Your task to perform on an android device: delete location history Image 0: 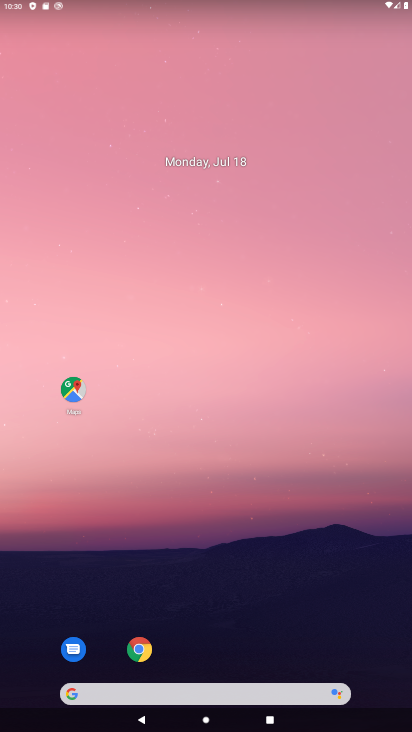
Step 0: click (69, 388)
Your task to perform on an android device: delete location history Image 1: 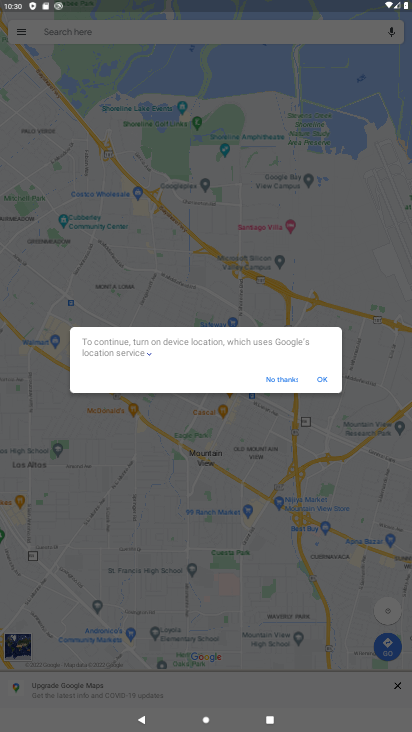
Step 1: click (18, 28)
Your task to perform on an android device: delete location history Image 2: 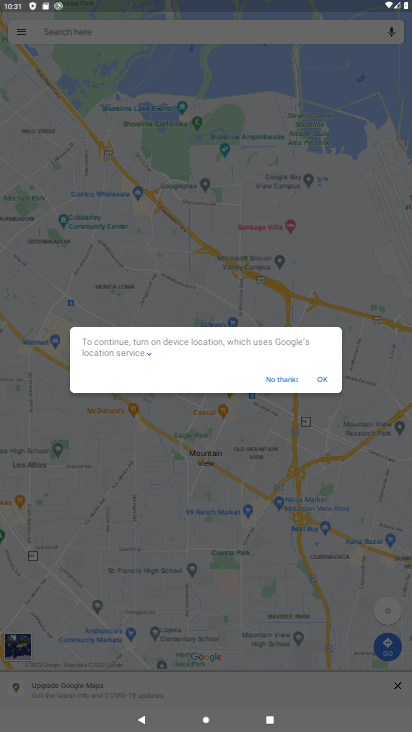
Step 2: click (327, 378)
Your task to perform on an android device: delete location history Image 3: 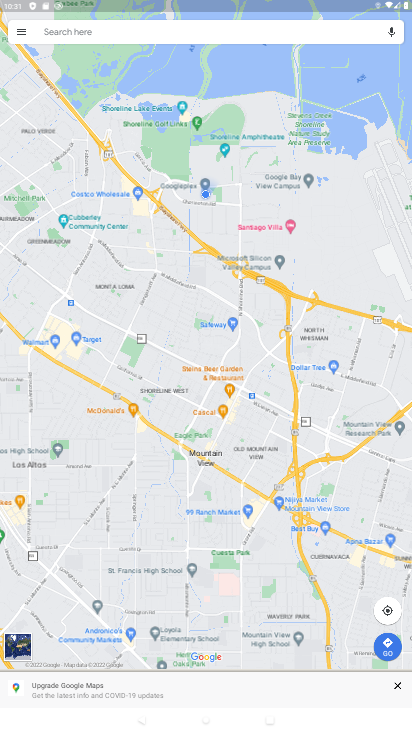
Step 3: click (19, 30)
Your task to perform on an android device: delete location history Image 4: 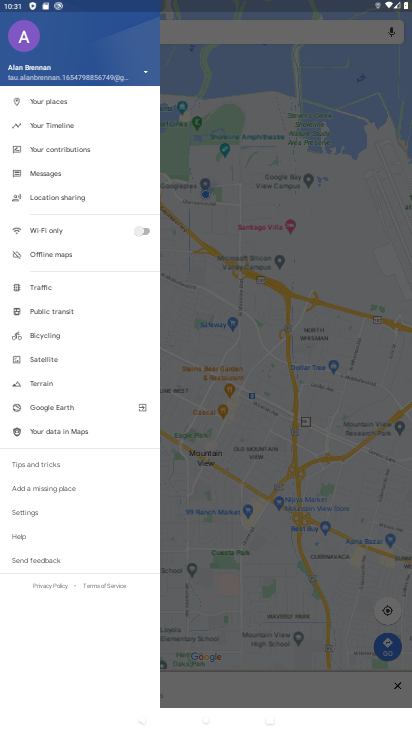
Step 4: click (47, 120)
Your task to perform on an android device: delete location history Image 5: 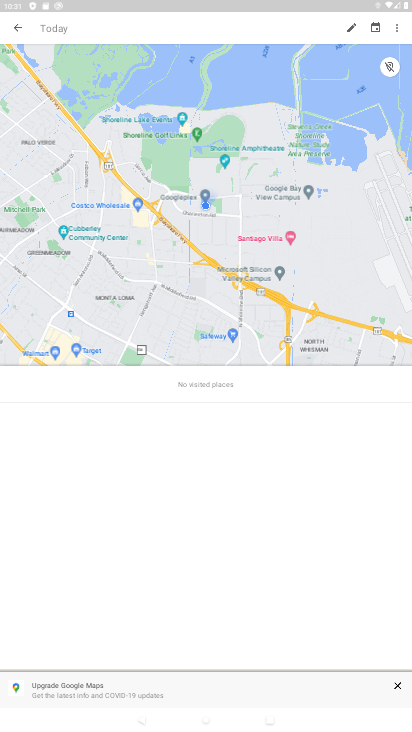
Step 5: click (398, 32)
Your task to perform on an android device: delete location history Image 6: 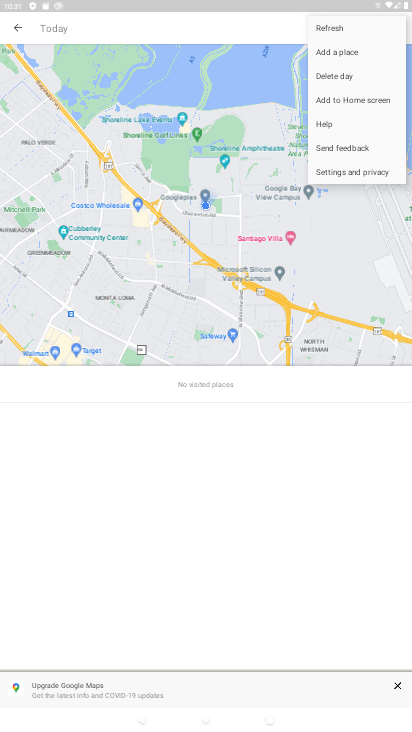
Step 6: click (348, 169)
Your task to perform on an android device: delete location history Image 7: 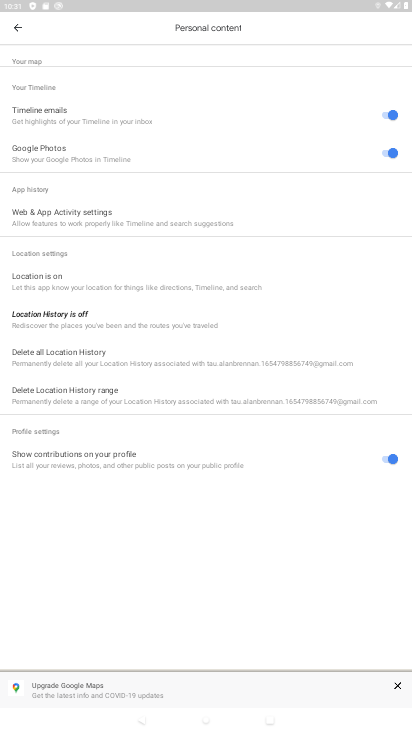
Step 7: click (60, 346)
Your task to perform on an android device: delete location history Image 8: 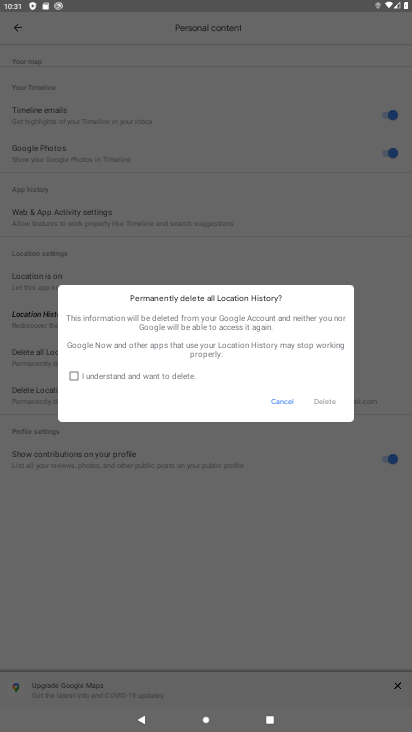
Step 8: click (73, 375)
Your task to perform on an android device: delete location history Image 9: 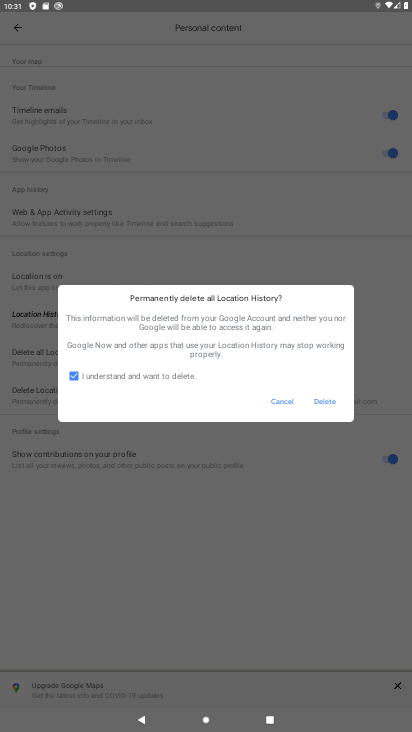
Step 9: click (326, 399)
Your task to perform on an android device: delete location history Image 10: 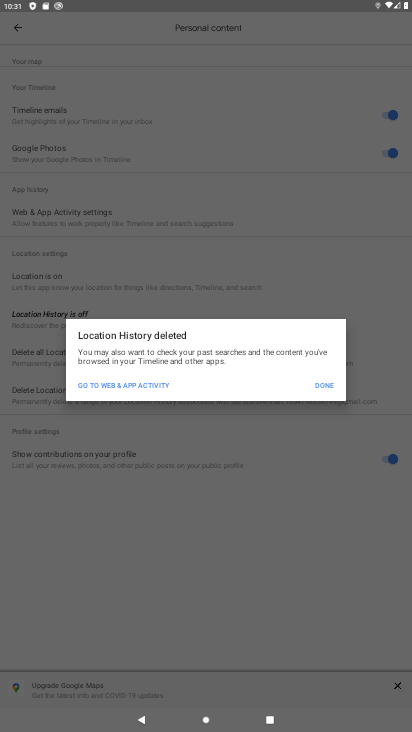
Step 10: click (326, 377)
Your task to perform on an android device: delete location history Image 11: 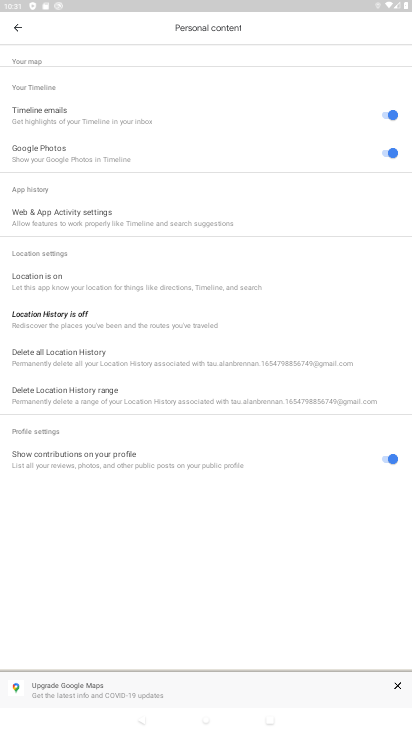
Step 11: task complete